Your task to perform on an android device: turn on priority inbox in the gmail app Image 0: 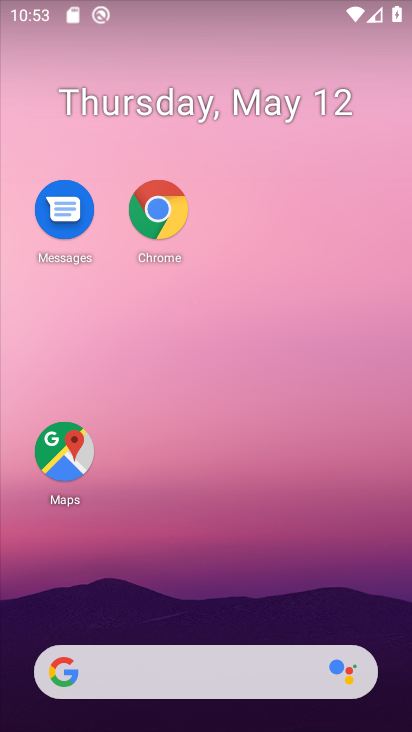
Step 0: drag from (212, 592) to (207, 5)
Your task to perform on an android device: turn on priority inbox in the gmail app Image 1: 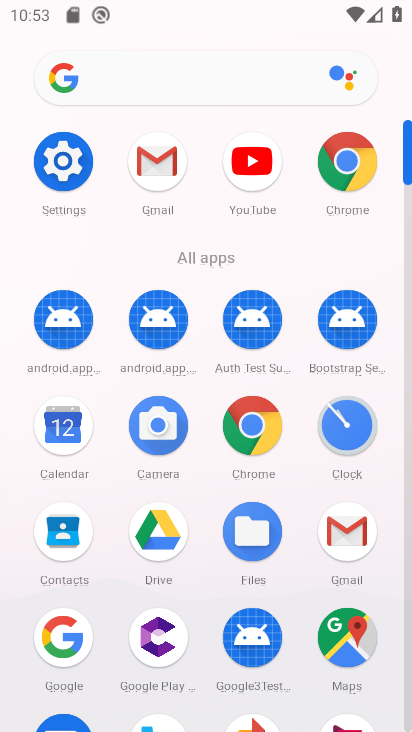
Step 1: click (345, 559)
Your task to perform on an android device: turn on priority inbox in the gmail app Image 2: 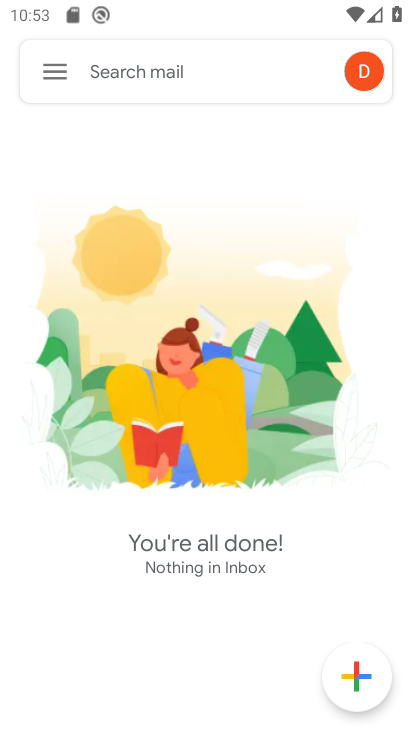
Step 2: click (54, 77)
Your task to perform on an android device: turn on priority inbox in the gmail app Image 3: 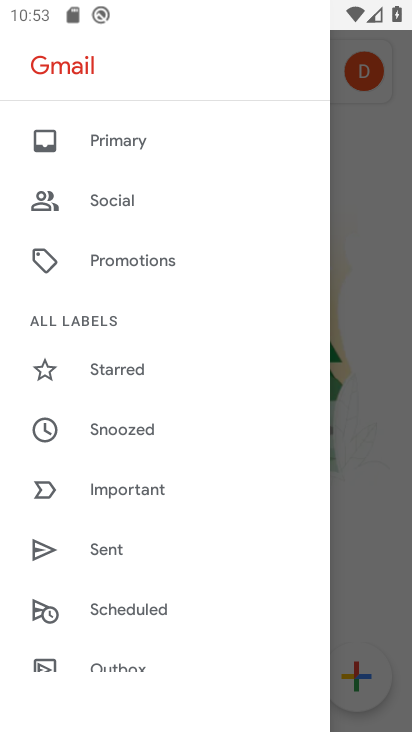
Step 3: drag from (110, 595) to (119, 166)
Your task to perform on an android device: turn on priority inbox in the gmail app Image 4: 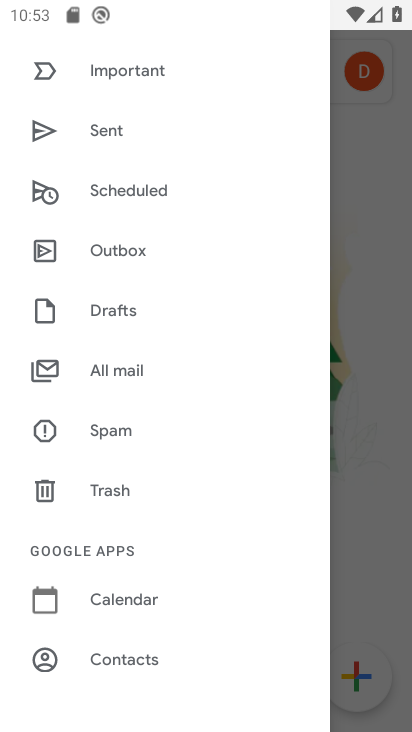
Step 4: drag from (113, 634) to (172, 165)
Your task to perform on an android device: turn on priority inbox in the gmail app Image 5: 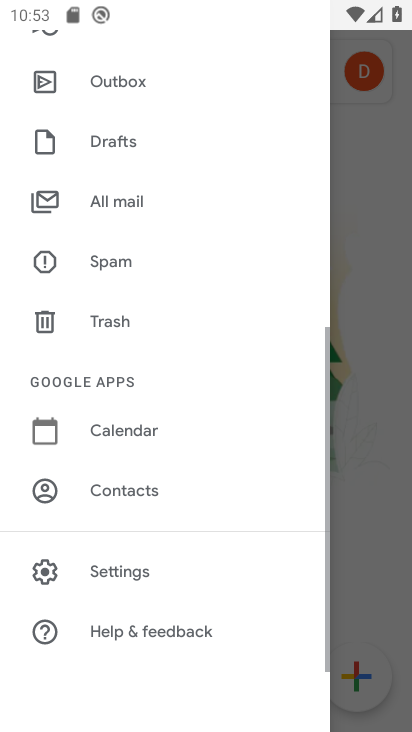
Step 5: click (130, 571)
Your task to perform on an android device: turn on priority inbox in the gmail app Image 6: 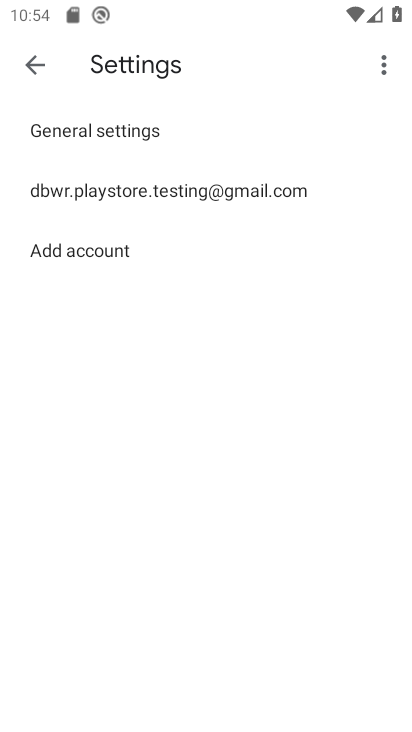
Step 6: click (139, 191)
Your task to perform on an android device: turn on priority inbox in the gmail app Image 7: 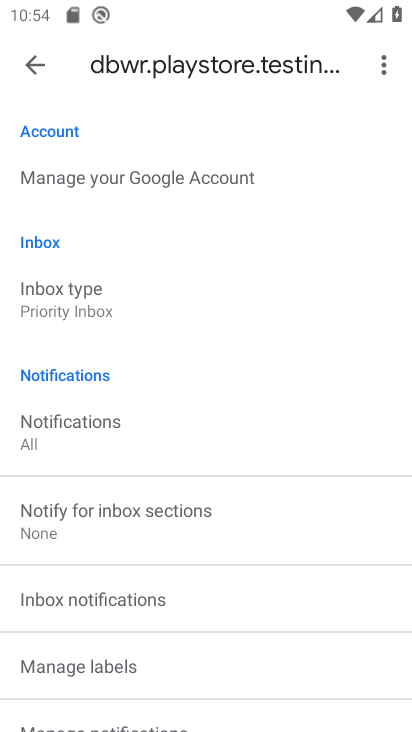
Step 7: task complete